Your task to perform on an android device: Open display settings Image 0: 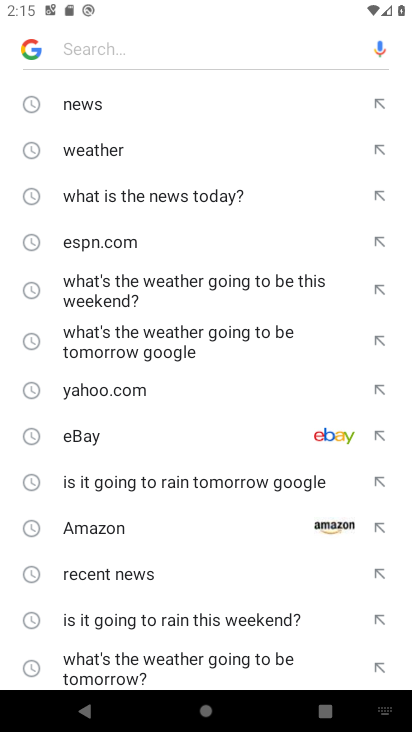
Step 0: press home button
Your task to perform on an android device: Open display settings Image 1: 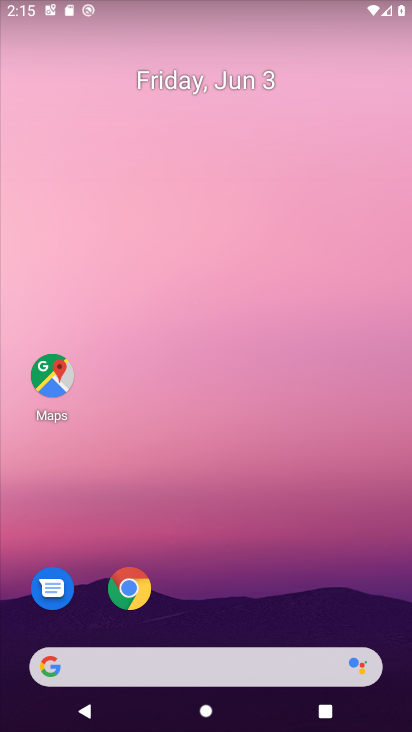
Step 1: drag from (255, 532) to (300, 6)
Your task to perform on an android device: Open display settings Image 2: 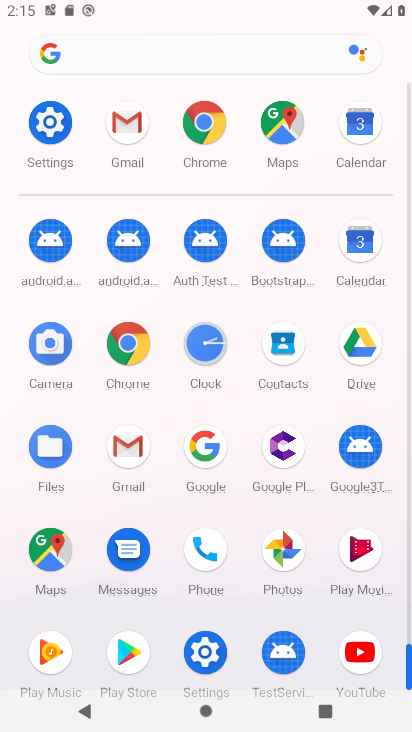
Step 2: click (61, 150)
Your task to perform on an android device: Open display settings Image 3: 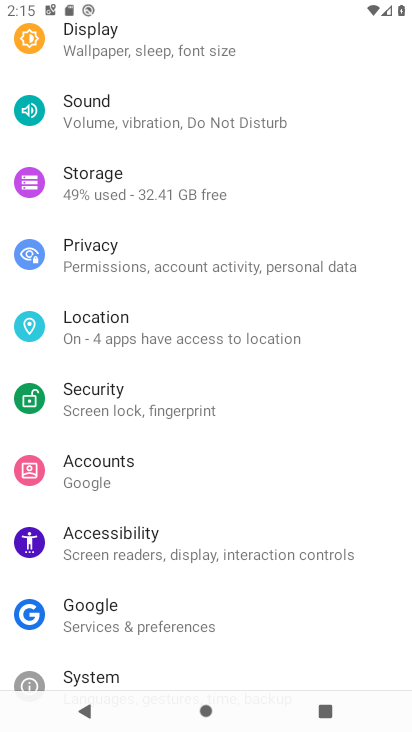
Step 3: drag from (160, 211) to (162, 545)
Your task to perform on an android device: Open display settings Image 4: 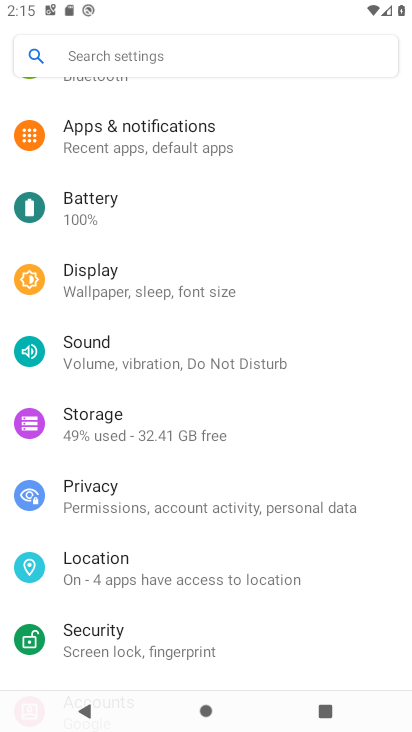
Step 4: click (184, 295)
Your task to perform on an android device: Open display settings Image 5: 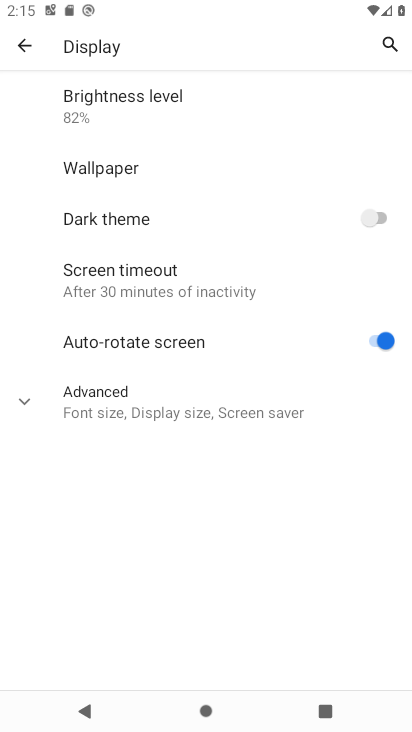
Step 5: task complete